Your task to perform on an android device: set the stopwatch Image 0: 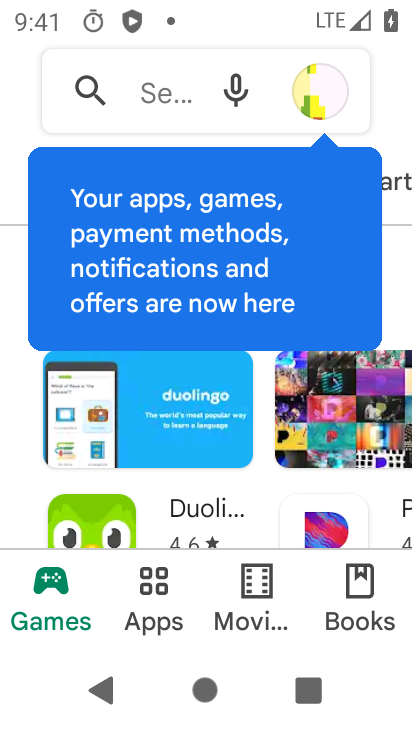
Step 0: press home button
Your task to perform on an android device: set the stopwatch Image 1: 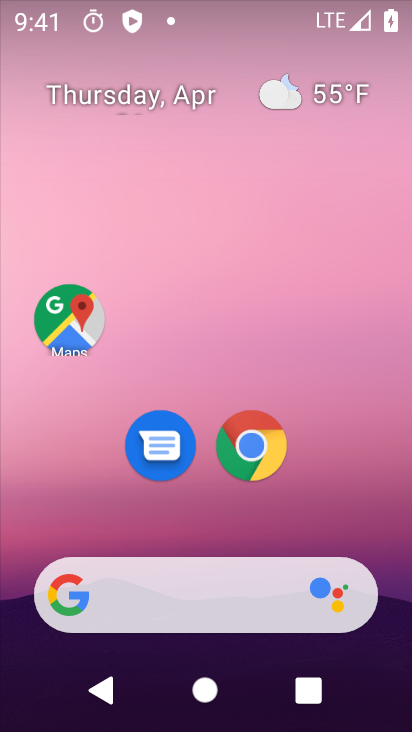
Step 1: drag from (389, 544) to (328, 6)
Your task to perform on an android device: set the stopwatch Image 2: 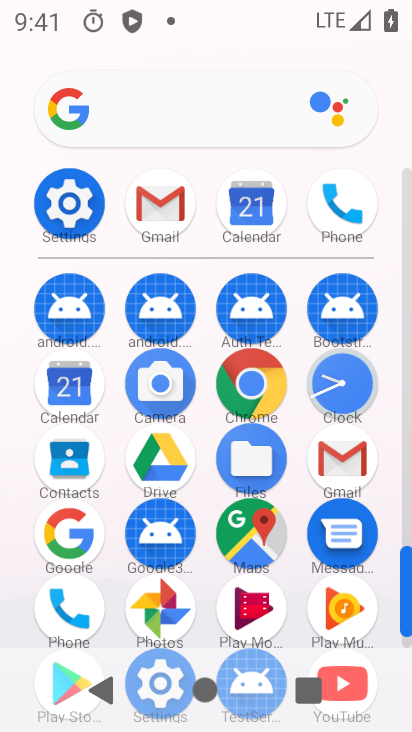
Step 2: click (333, 390)
Your task to perform on an android device: set the stopwatch Image 3: 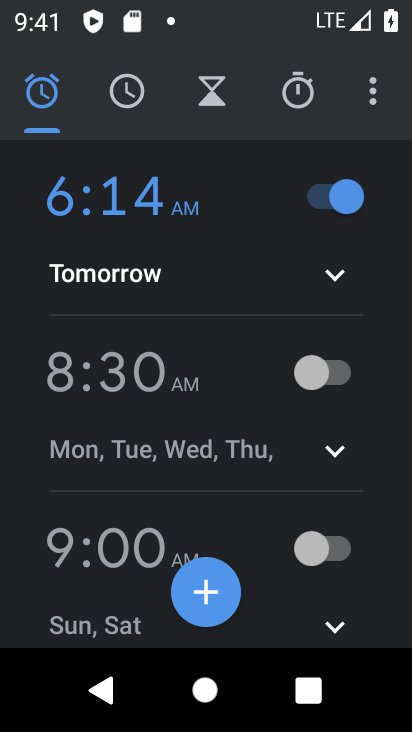
Step 3: click (318, 97)
Your task to perform on an android device: set the stopwatch Image 4: 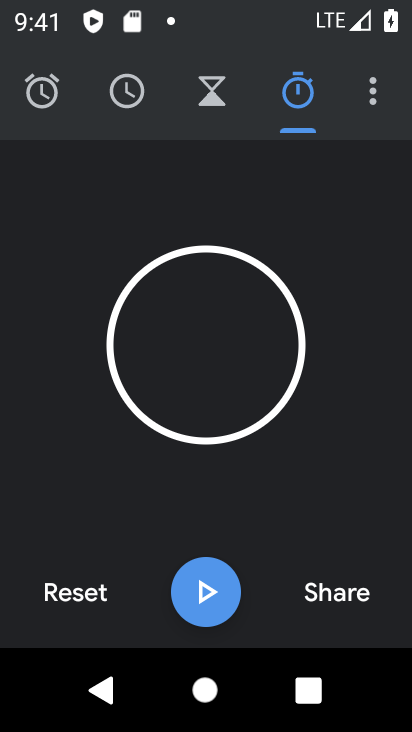
Step 4: click (218, 597)
Your task to perform on an android device: set the stopwatch Image 5: 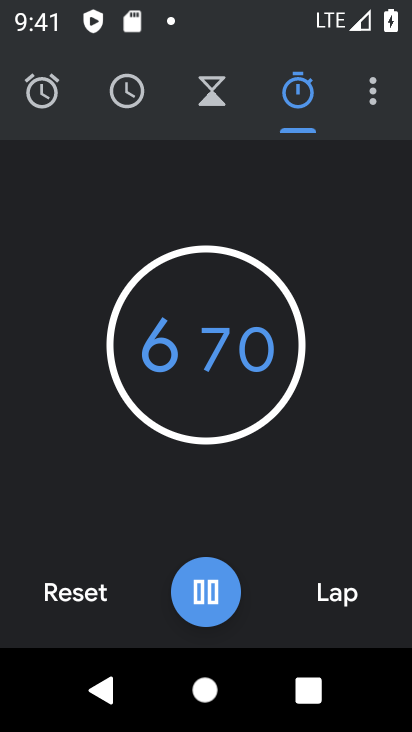
Step 5: click (91, 597)
Your task to perform on an android device: set the stopwatch Image 6: 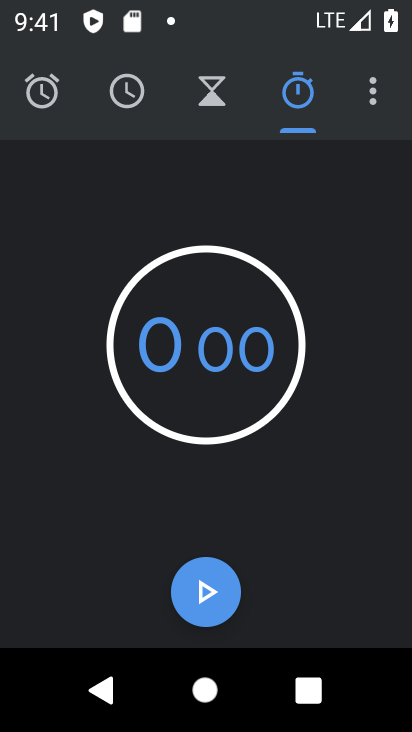
Step 6: click (207, 605)
Your task to perform on an android device: set the stopwatch Image 7: 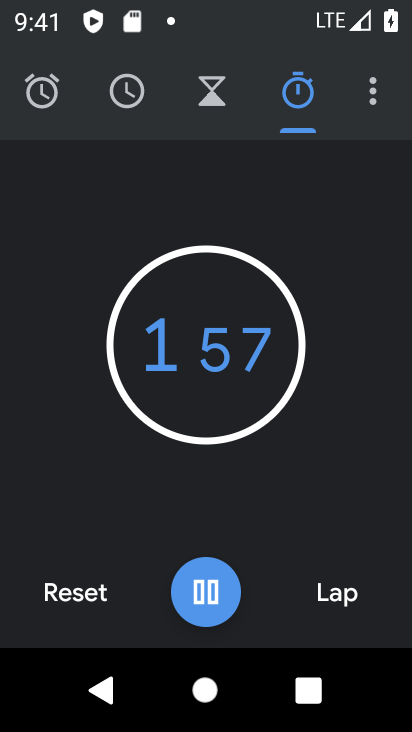
Step 7: click (207, 605)
Your task to perform on an android device: set the stopwatch Image 8: 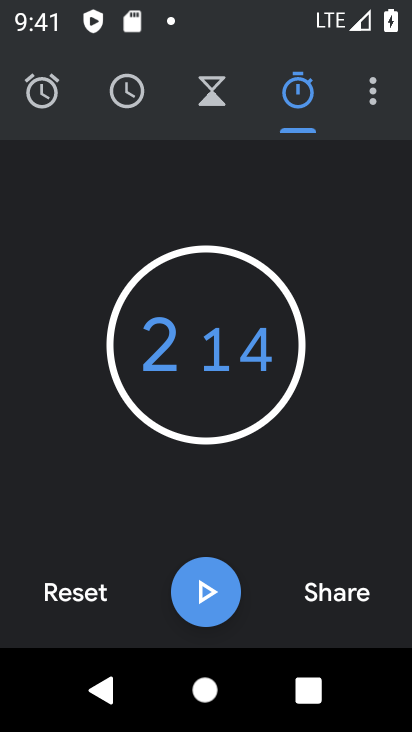
Step 8: task complete